Your task to perform on an android device: Go to location settings Image 0: 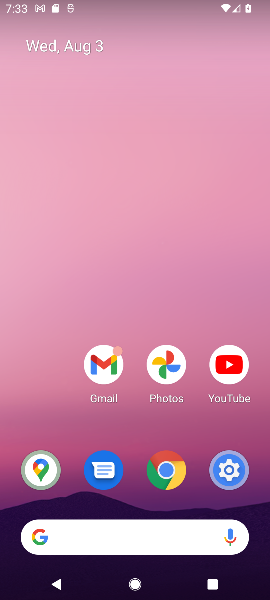
Step 0: press home button
Your task to perform on an android device: Go to location settings Image 1: 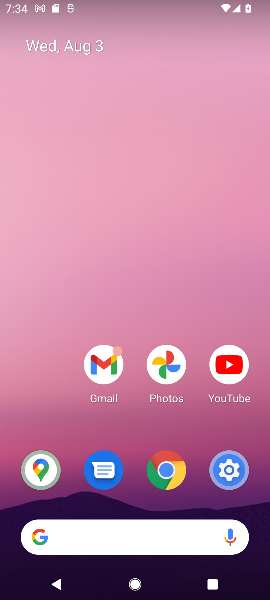
Step 1: drag from (142, 507) to (170, 44)
Your task to perform on an android device: Go to location settings Image 2: 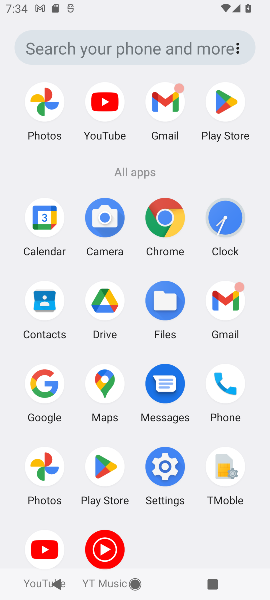
Step 2: click (162, 460)
Your task to perform on an android device: Go to location settings Image 3: 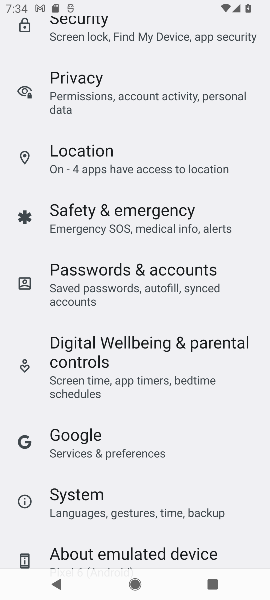
Step 3: click (117, 158)
Your task to perform on an android device: Go to location settings Image 4: 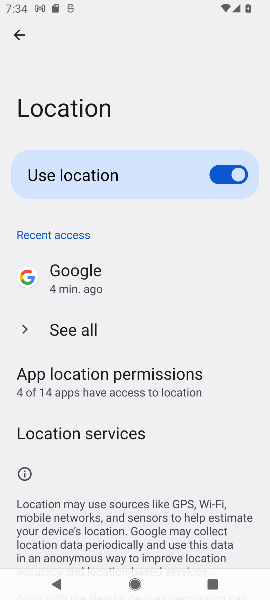
Step 4: click (57, 433)
Your task to perform on an android device: Go to location settings Image 5: 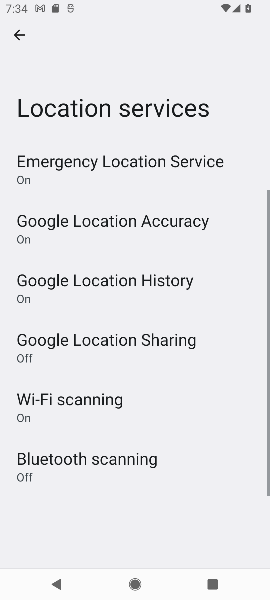
Step 5: task complete